Your task to perform on an android device: uninstall "Google Photos" Image 0: 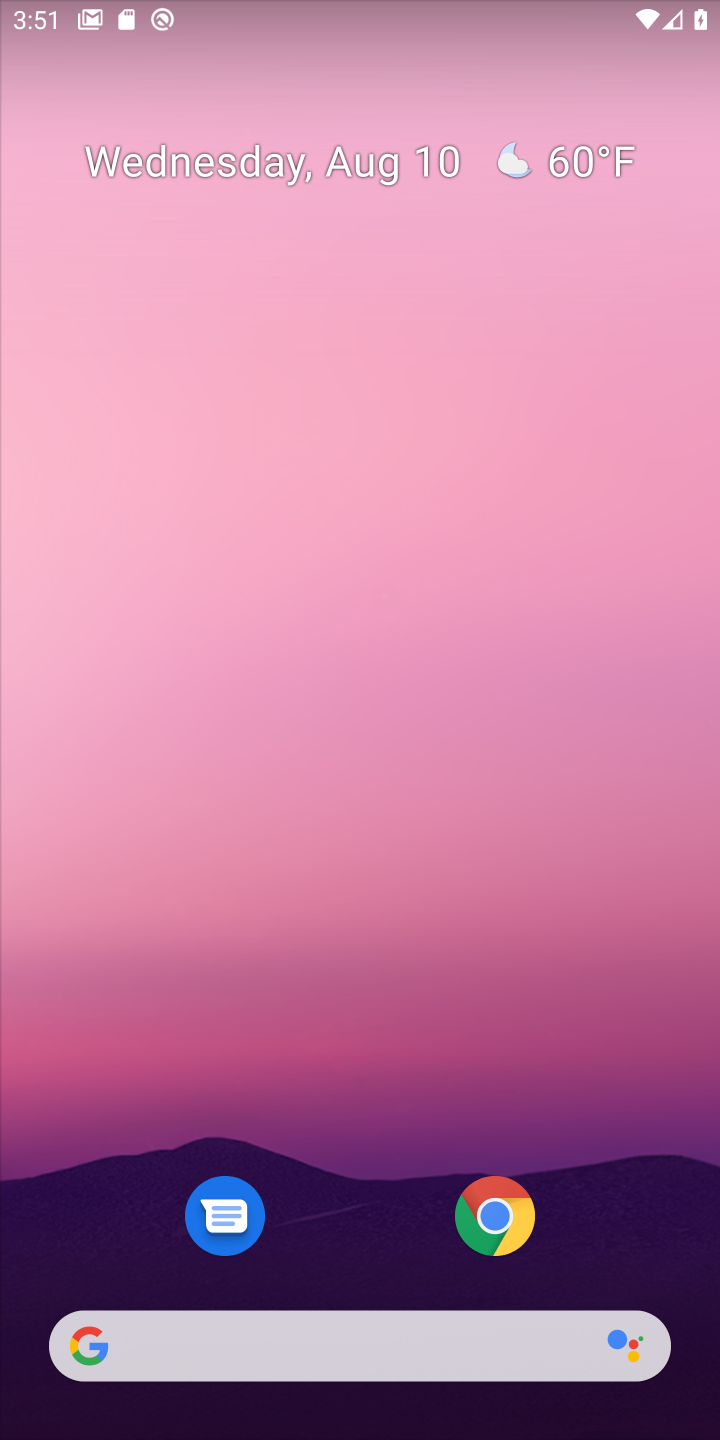
Step 0: drag from (367, 1267) to (698, 585)
Your task to perform on an android device: uninstall "Google Photos" Image 1: 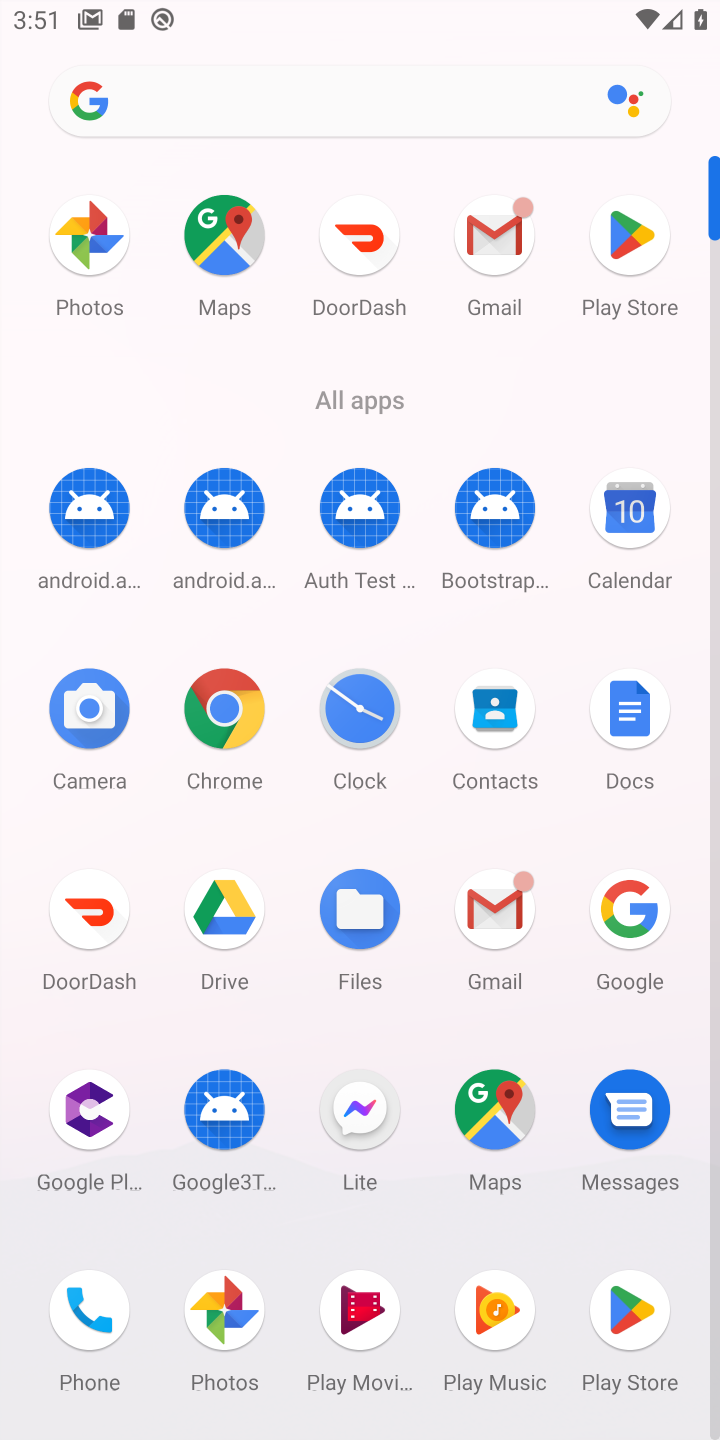
Step 1: click (244, 1331)
Your task to perform on an android device: uninstall "Google Photos" Image 2: 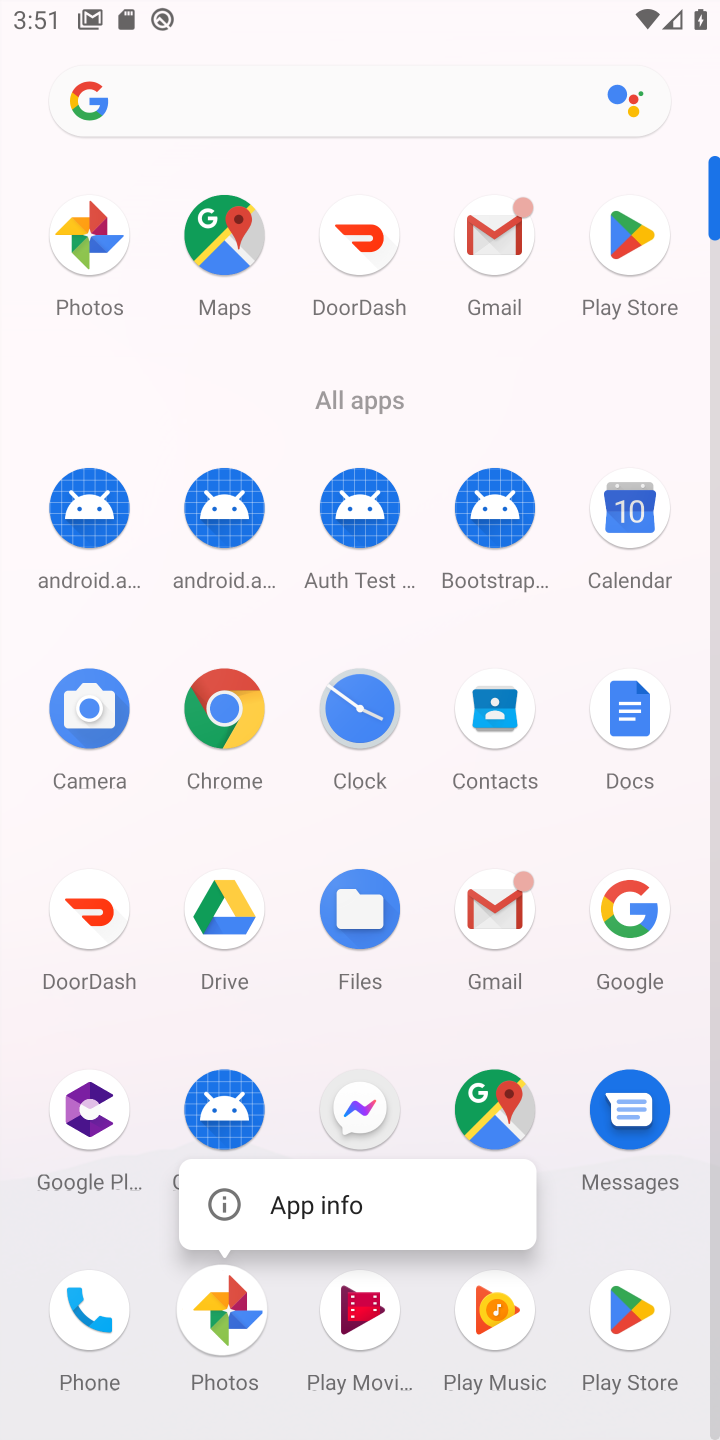
Step 2: click (221, 1226)
Your task to perform on an android device: uninstall "Google Photos" Image 3: 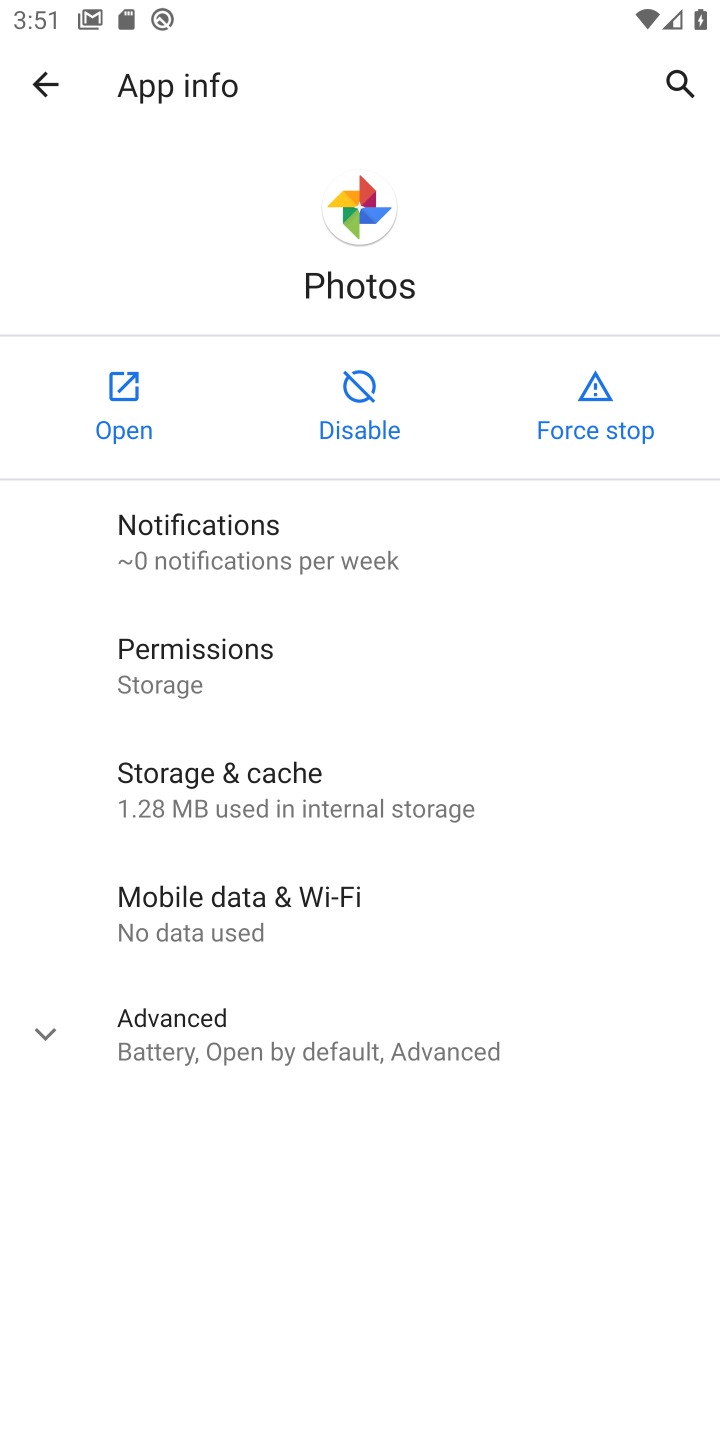
Step 3: click (236, 1026)
Your task to perform on an android device: uninstall "Google Photos" Image 4: 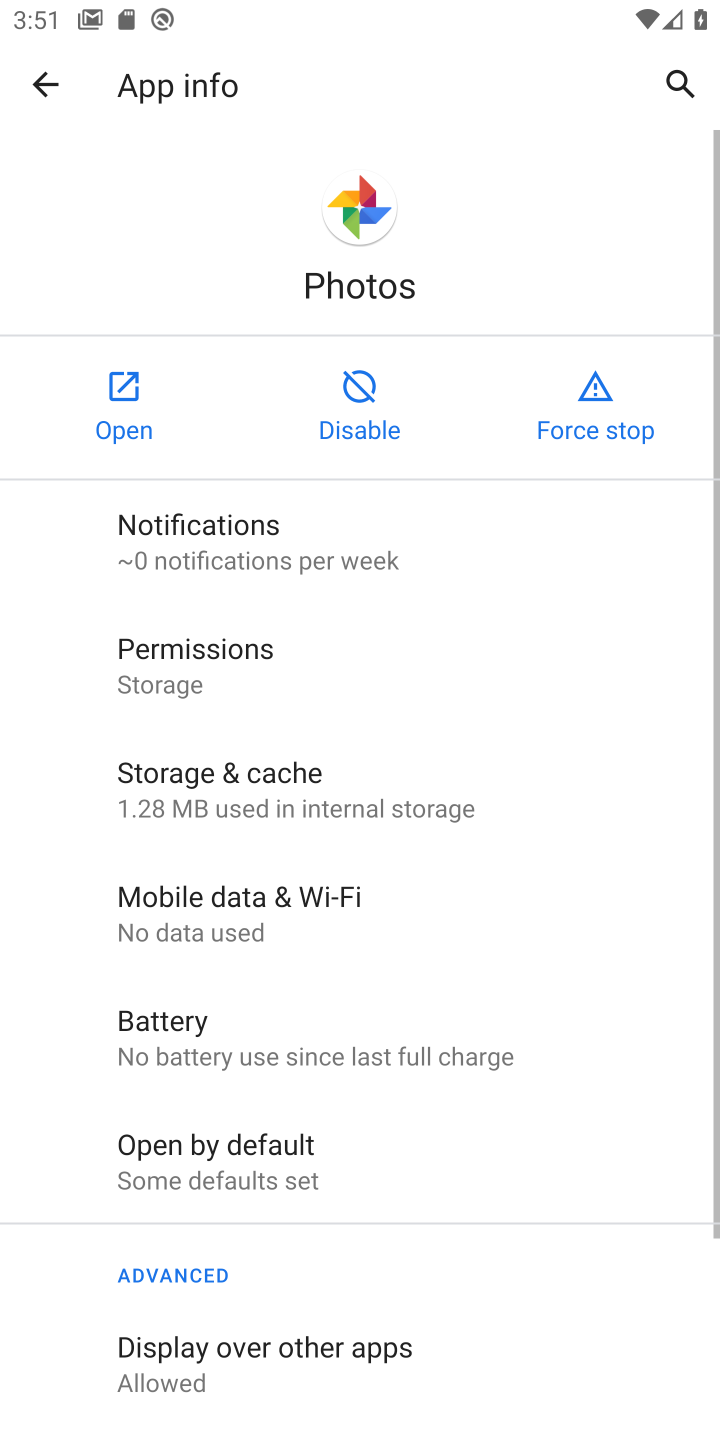
Step 4: task complete